Your task to perform on an android device: show emergency info Image 0: 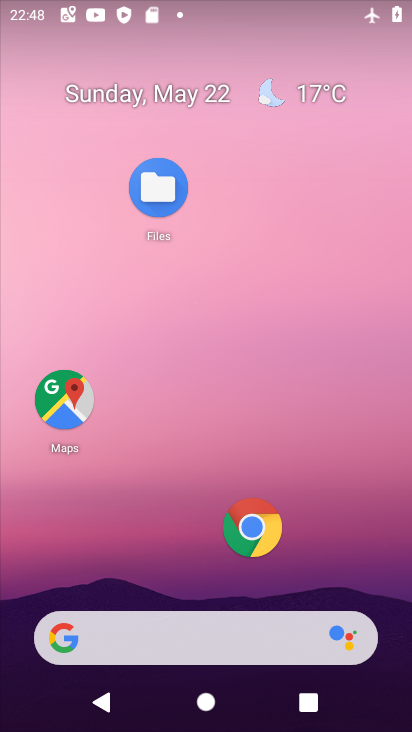
Step 0: drag from (179, 525) to (190, 101)
Your task to perform on an android device: show emergency info Image 1: 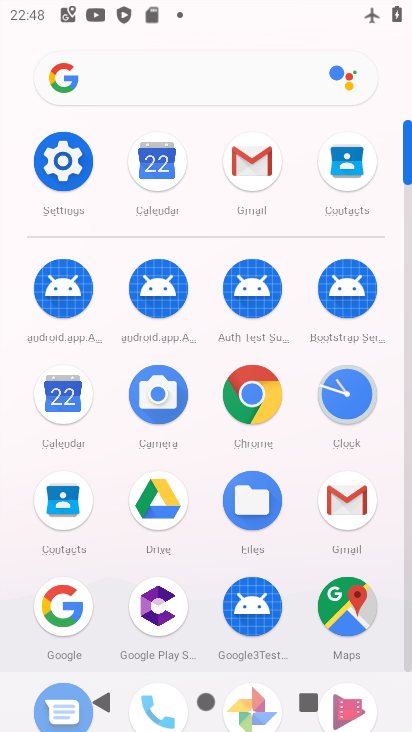
Step 1: click (62, 160)
Your task to perform on an android device: show emergency info Image 2: 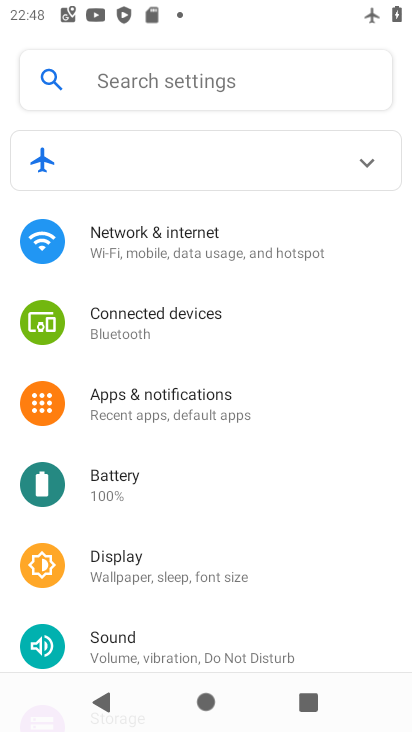
Step 2: drag from (256, 601) to (218, 132)
Your task to perform on an android device: show emergency info Image 3: 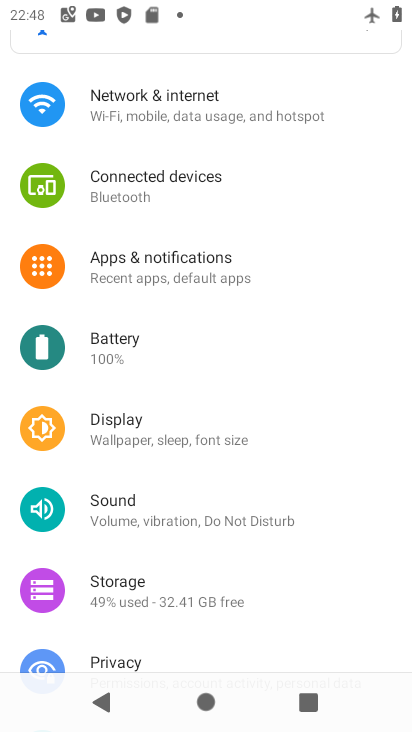
Step 3: drag from (297, 548) to (236, 72)
Your task to perform on an android device: show emergency info Image 4: 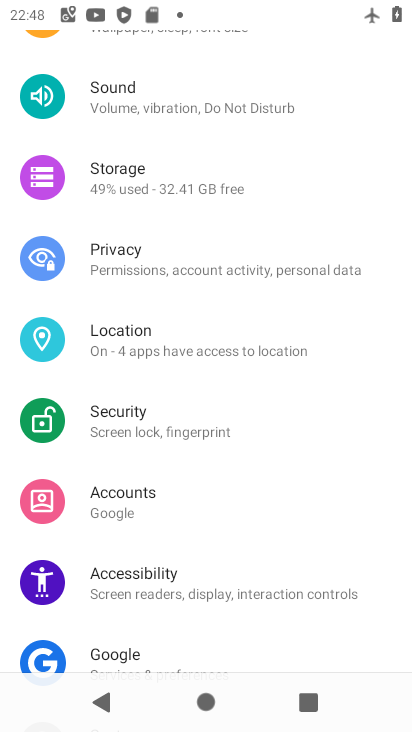
Step 4: drag from (244, 583) to (199, 189)
Your task to perform on an android device: show emergency info Image 5: 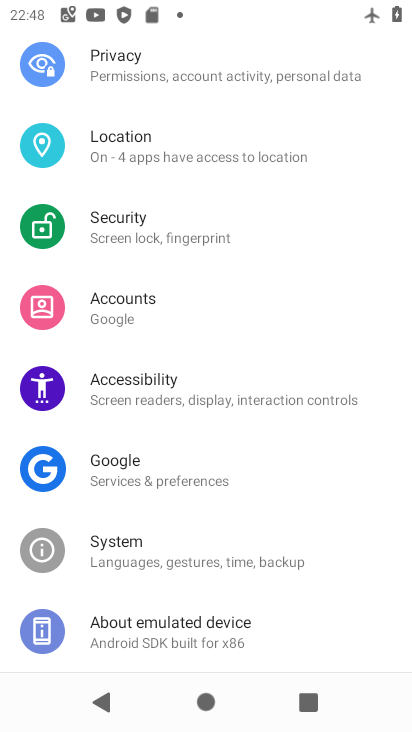
Step 5: click (146, 624)
Your task to perform on an android device: show emergency info Image 6: 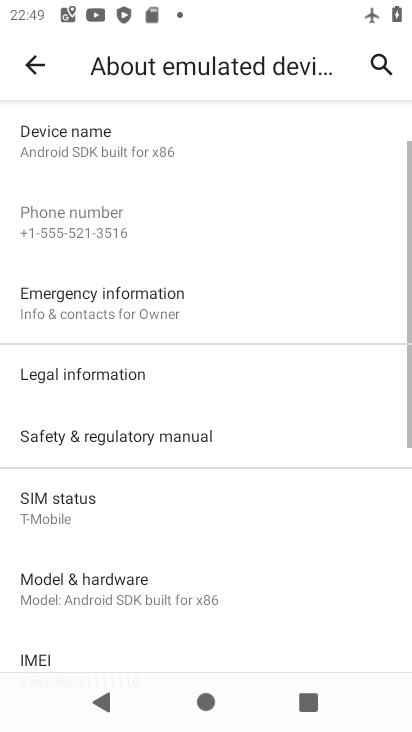
Step 6: click (122, 300)
Your task to perform on an android device: show emergency info Image 7: 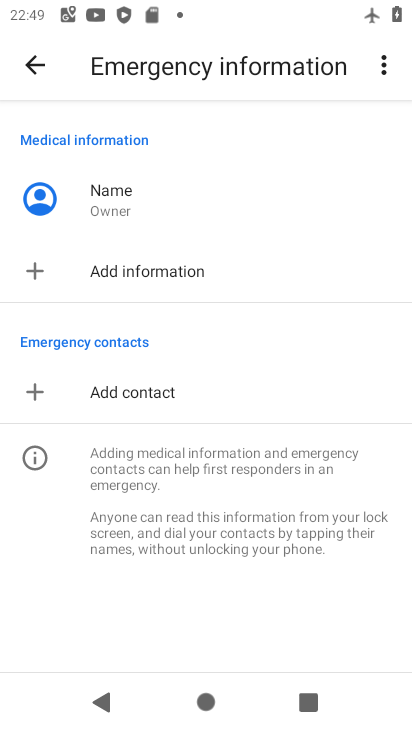
Step 7: task complete